Your task to perform on an android device: Open Google Maps Image 0: 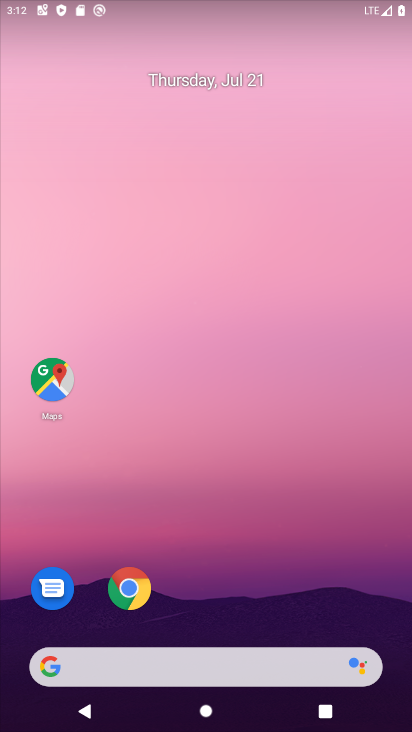
Step 0: click (53, 364)
Your task to perform on an android device: Open Google Maps Image 1: 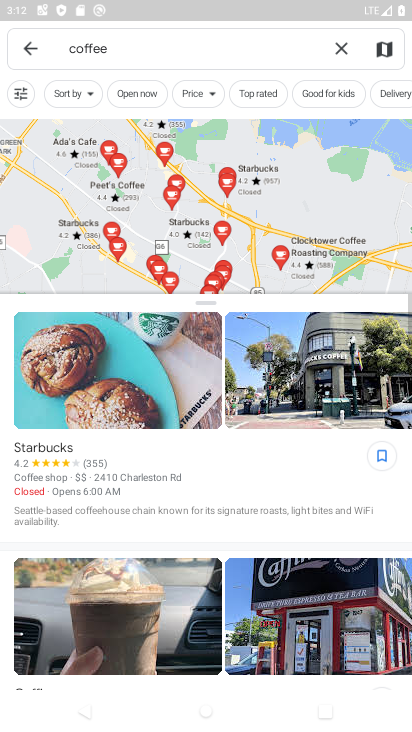
Step 1: task complete